Your task to perform on an android device: Show me the alarms in the clock app Image 0: 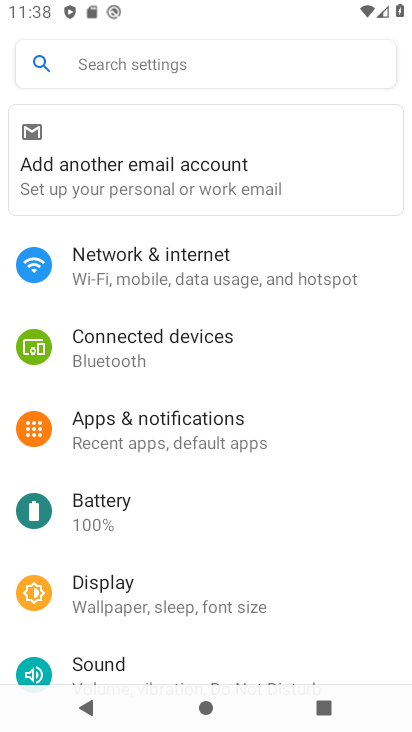
Step 0: press home button
Your task to perform on an android device: Show me the alarms in the clock app Image 1: 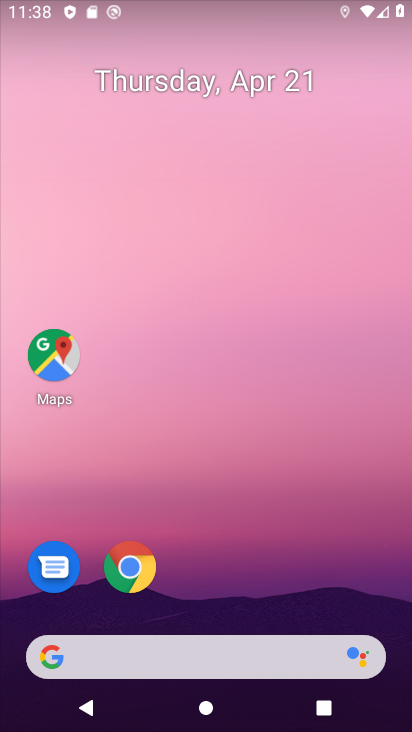
Step 1: drag from (224, 599) to (259, 215)
Your task to perform on an android device: Show me the alarms in the clock app Image 2: 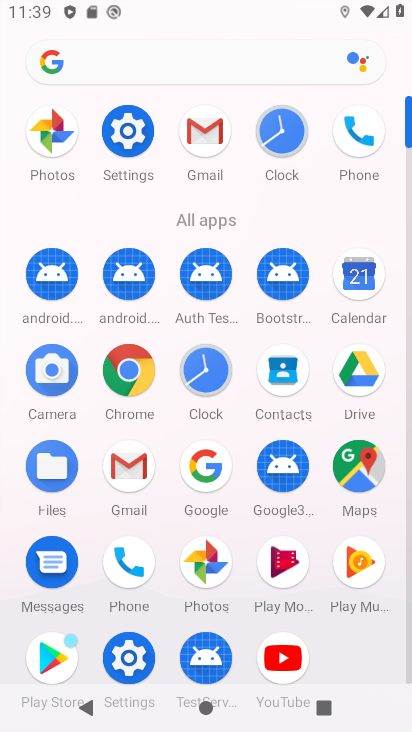
Step 2: click (198, 382)
Your task to perform on an android device: Show me the alarms in the clock app Image 3: 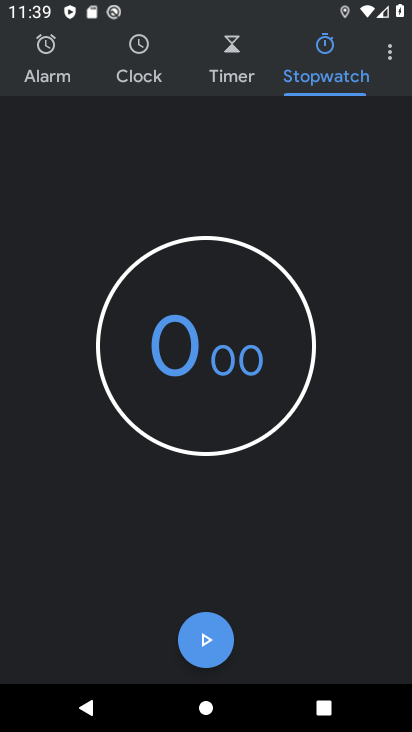
Step 3: click (57, 82)
Your task to perform on an android device: Show me the alarms in the clock app Image 4: 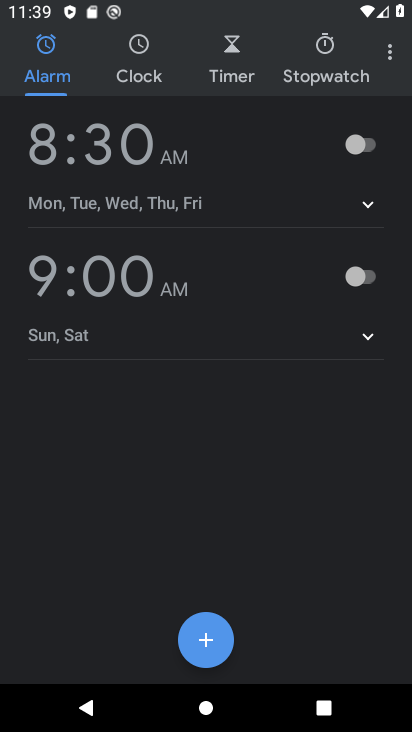
Step 4: task complete